Your task to perform on an android device: visit the assistant section in the google photos Image 0: 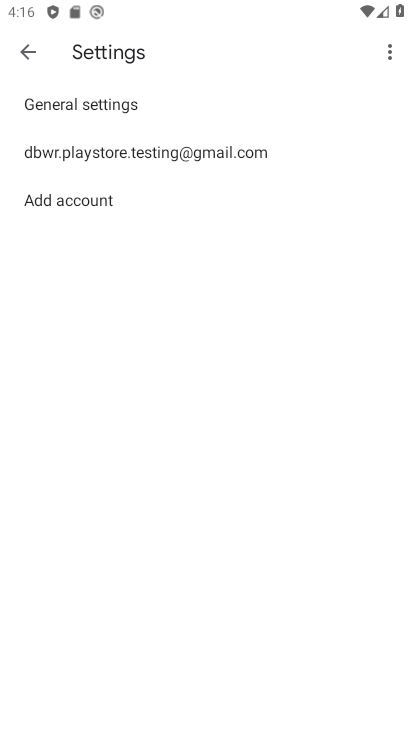
Step 0: press home button
Your task to perform on an android device: visit the assistant section in the google photos Image 1: 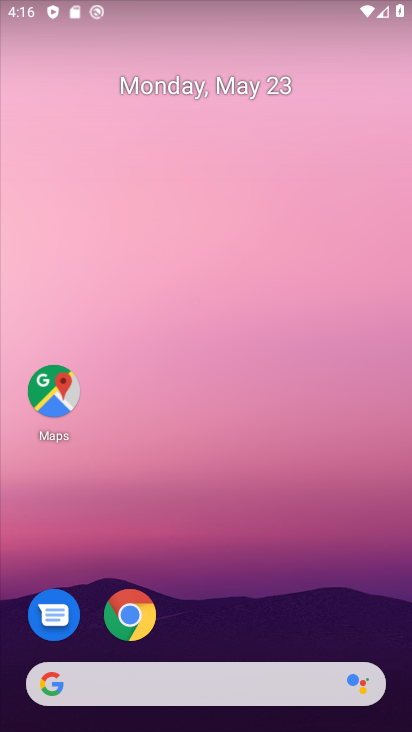
Step 1: drag from (288, 600) to (275, 38)
Your task to perform on an android device: visit the assistant section in the google photos Image 2: 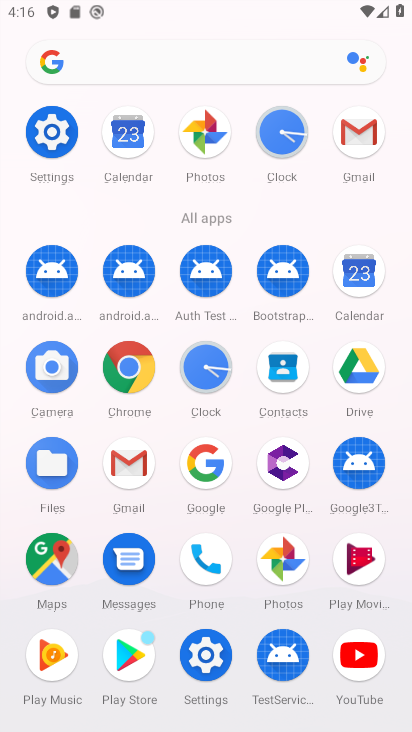
Step 2: click (207, 116)
Your task to perform on an android device: visit the assistant section in the google photos Image 3: 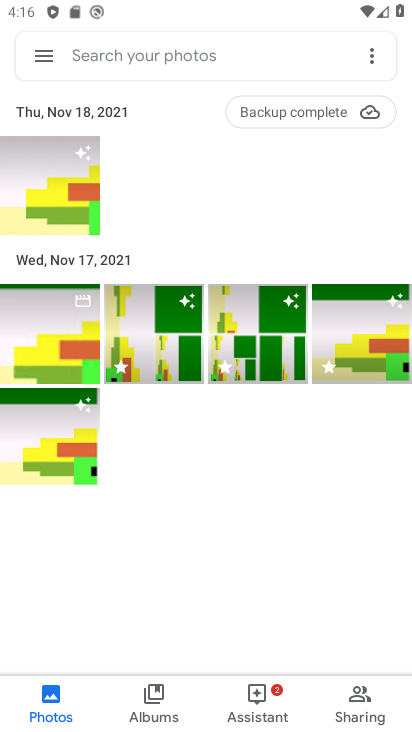
Step 3: click (260, 706)
Your task to perform on an android device: visit the assistant section in the google photos Image 4: 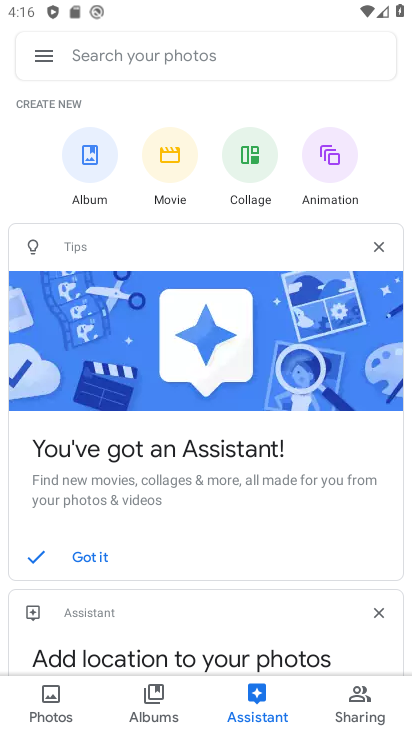
Step 4: task complete